Your task to perform on an android device: toggle location history Image 0: 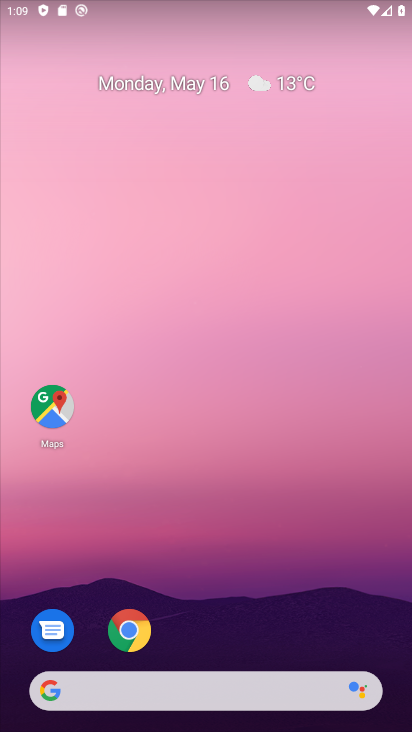
Step 0: drag from (220, 491) to (164, 130)
Your task to perform on an android device: toggle location history Image 1: 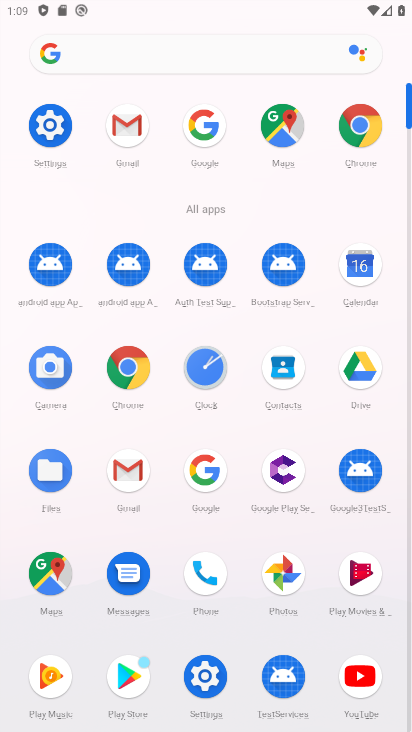
Step 1: click (56, 120)
Your task to perform on an android device: toggle location history Image 2: 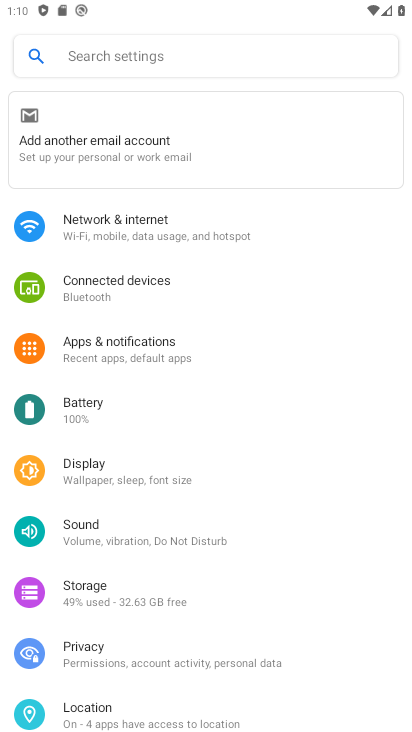
Step 2: drag from (310, 638) to (299, 234)
Your task to perform on an android device: toggle location history Image 3: 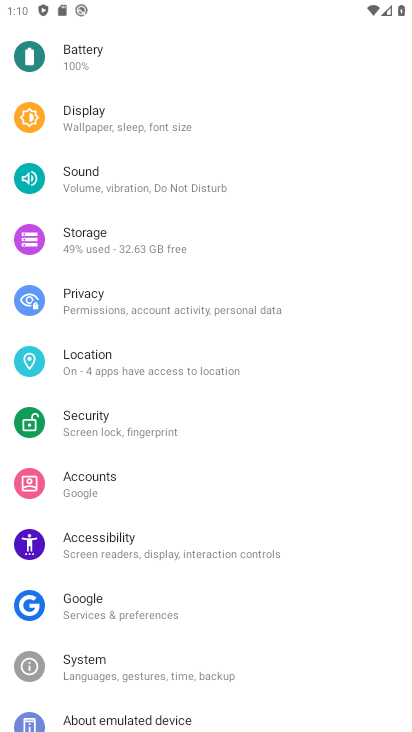
Step 3: click (80, 332)
Your task to perform on an android device: toggle location history Image 4: 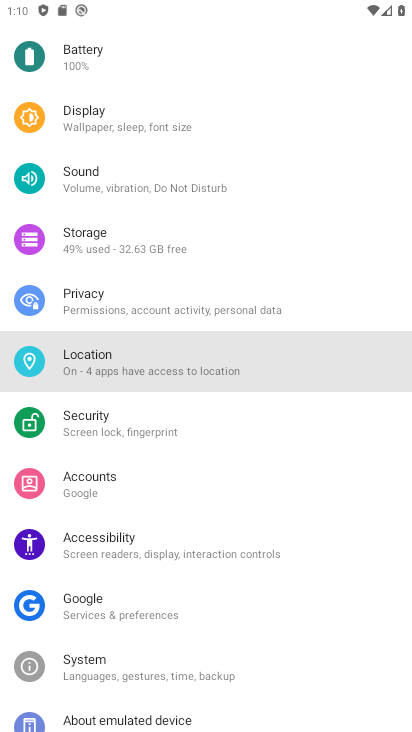
Step 4: click (69, 351)
Your task to perform on an android device: toggle location history Image 5: 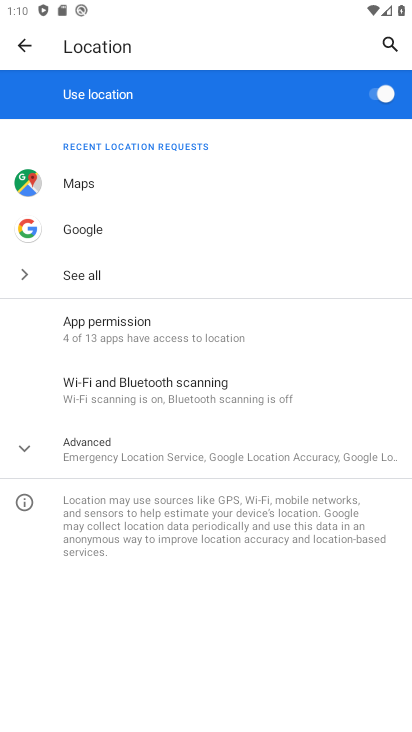
Step 5: click (396, 97)
Your task to perform on an android device: toggle location history Image 6: 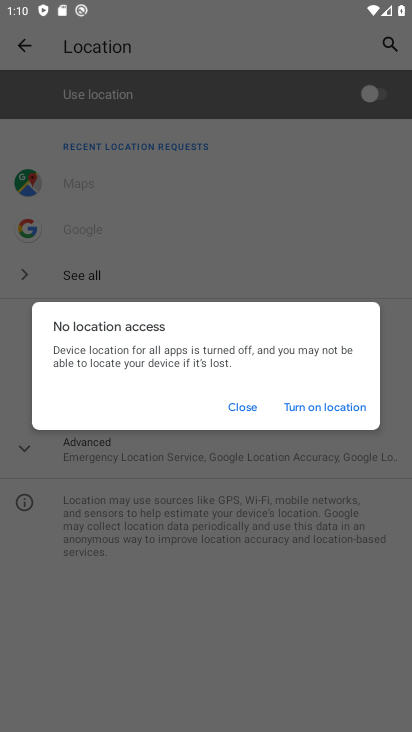
Step 6: task complete